Your task to perform on an android device: turn pop-ups on in chrome Image 0: 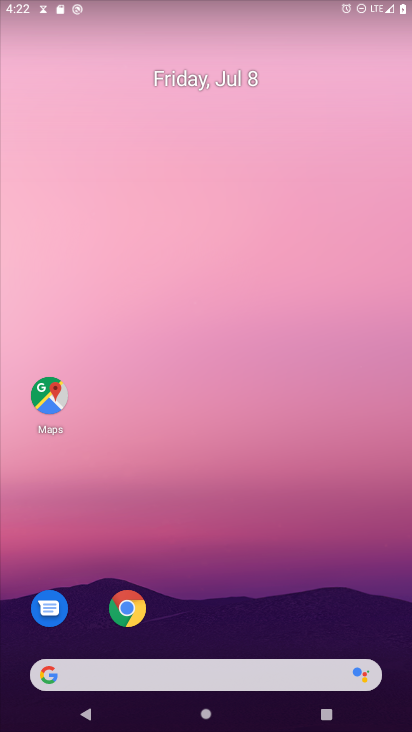
Step 0: drag from (220, 667) to (314, 4)
Your task to perform on an android device: turn pop-ups on in chrome Image 1: 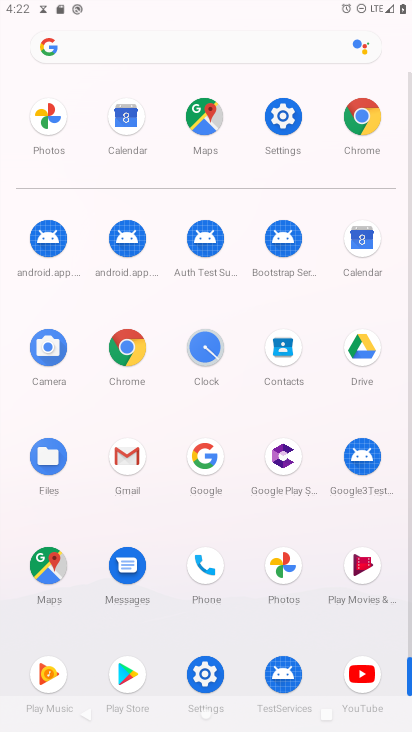
Step 1: click (121, 359)
Your task to perform on an android device: turn pop-ups on in chrome Image 2: 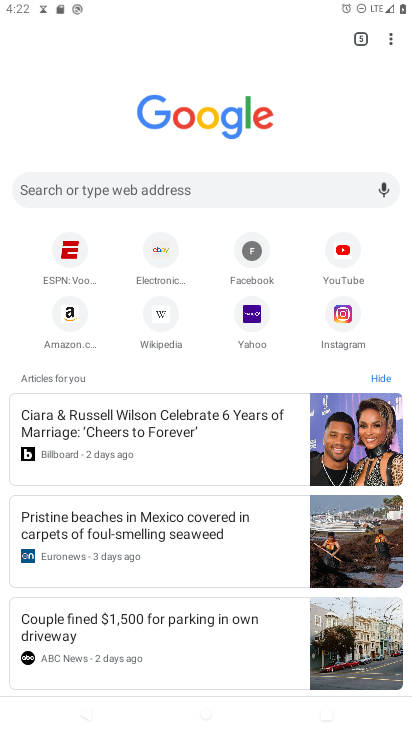
Step 2: drag from (395, 55) to (317, 325)
Your task to perform on an android device: turn pop-ups on in chrome Image 3: 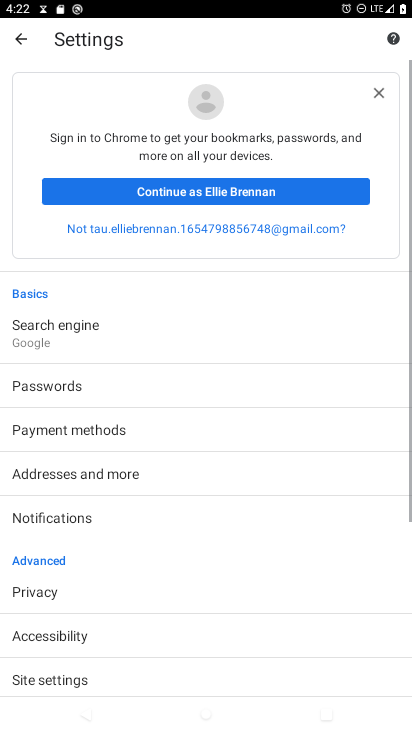
Step 3: drag from (198, 624) to (215, 313)
Your task to perform on an android device: turn pop-ups on in chrome Image 4: 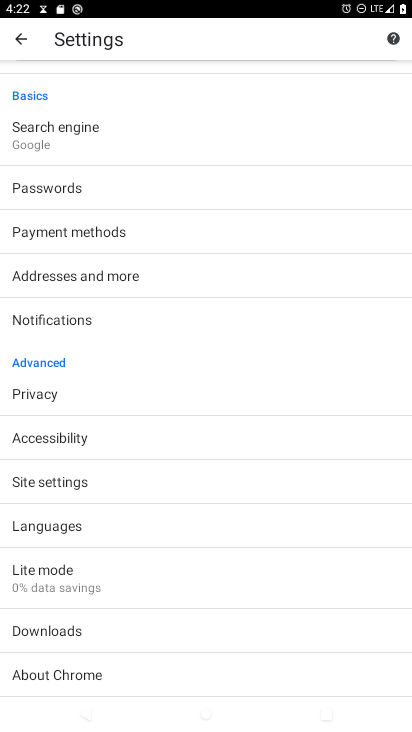
Step 4: click (153, 483)
Your task to perform on an android device: turn pop-ups on in chrome Image 5: 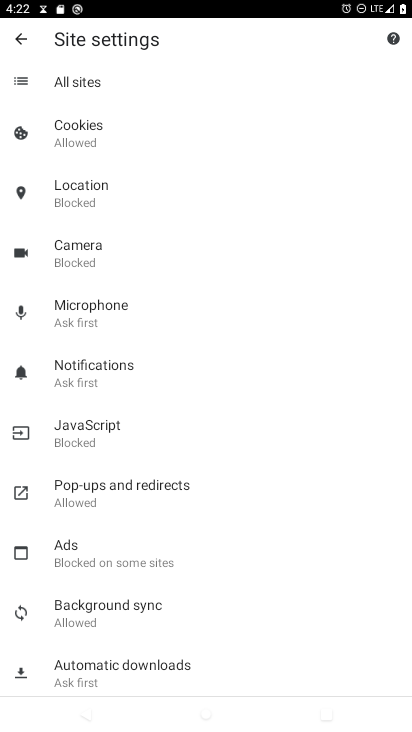
Step 5: click (132, 497)
Your task to perform on an android device: turn pop-ups on in chrome Image 6: 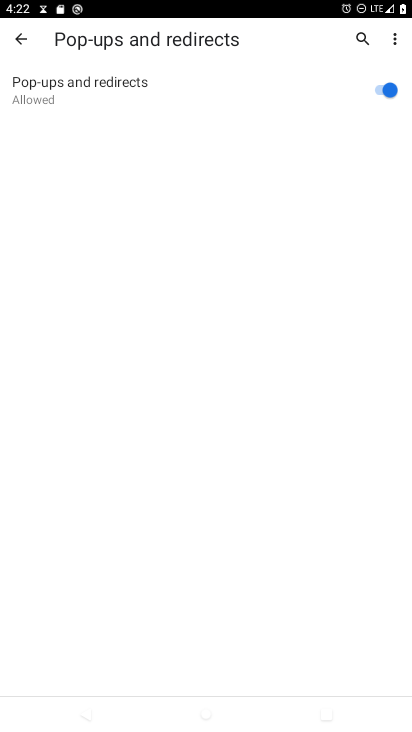
Step 6: task complete